Your task to perform on an android device: Open Amazon Image 0: 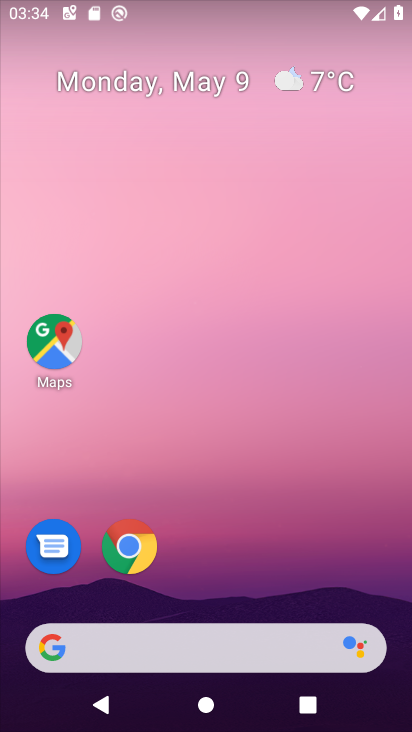
Step 0: drag from (280, 527) to (233, 16)
Your task to perform on an android device: Open Amazon Image 1: 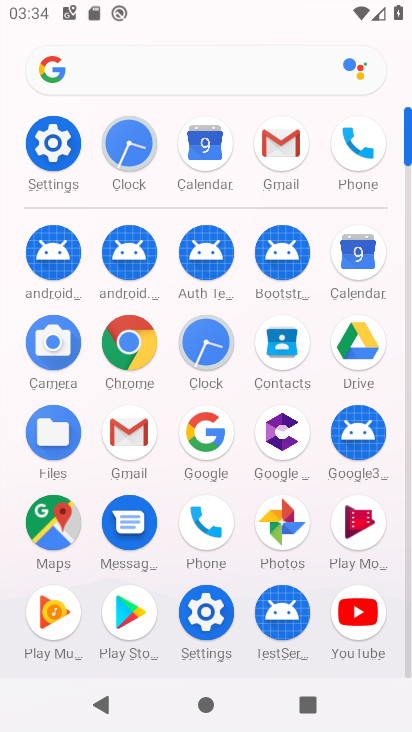
Step 1: click (144, 347)
Your task to perform on an android device: Open Amazon Image 2: 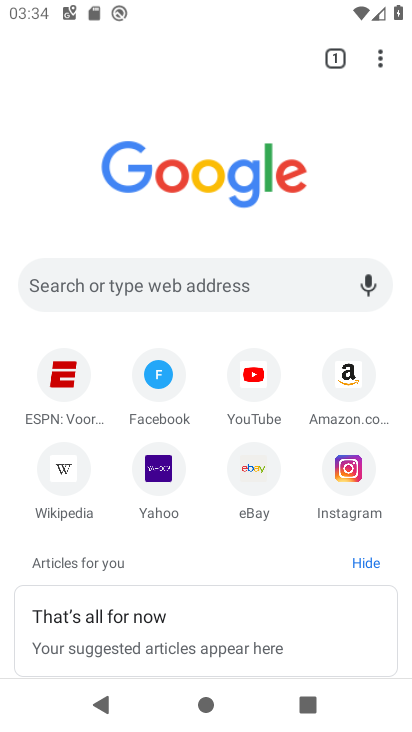
Step 2: click (349, 370)
Your task to perform on an android device: Open Amazon Image 3: 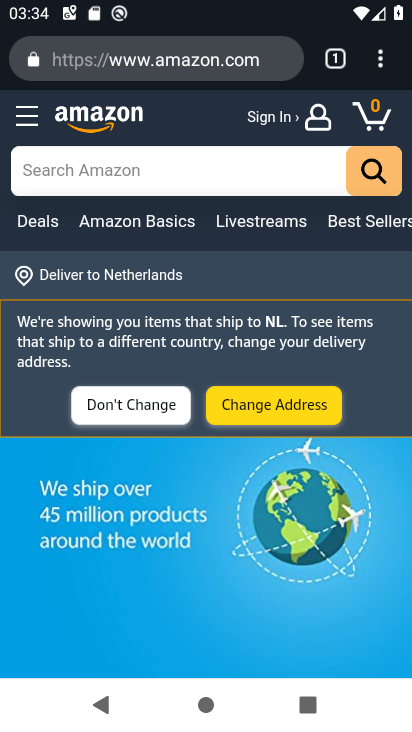
Step 3: task complete